Your task to perform on an android device: open a new tab in the chrome app Image 0: 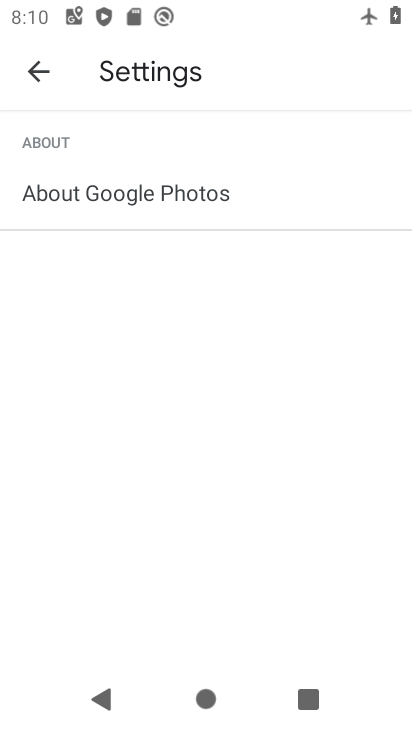
Step 0: press home button
Your task to perform on an android device: open a new tab in the chrome app Image 1: 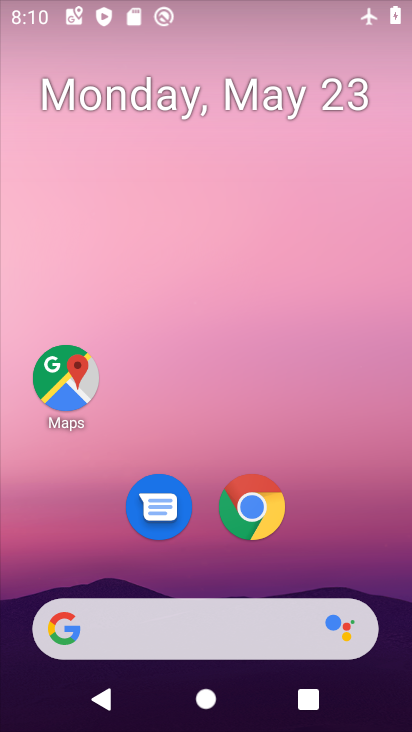
Step 1: drag from (358, 534) to (296, 194)
Your task to perform on an android device: open a new tab in the chrome app Image 2: 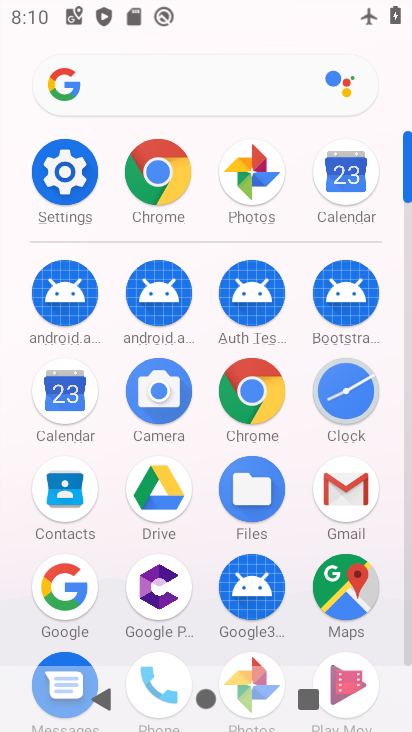
Step 2: click (263, 406)
Your task to perform on an android device: open a new tab in the chrome app Image 3: 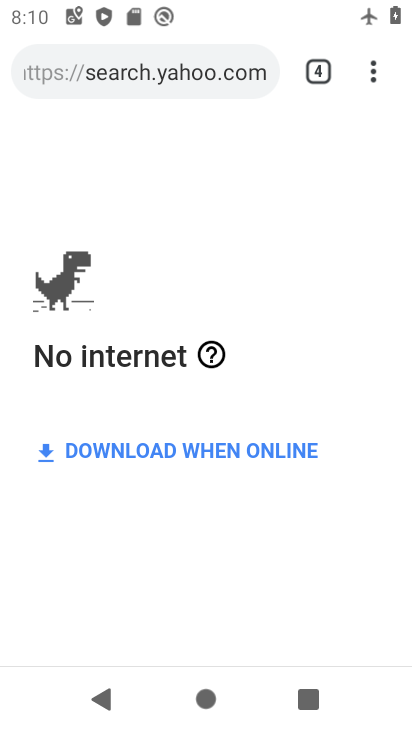
Step 3: click (311, 62)
Your task to perform on an android device: open a new tab in the chrome app Image 4: 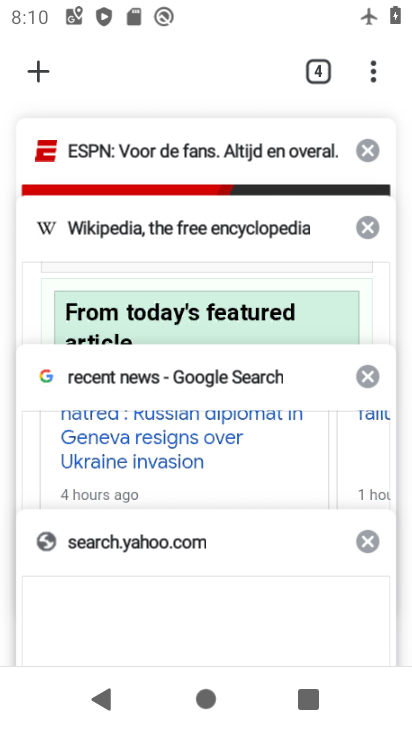
Step 4: click (44, 70)
Your task to perform on an android device: open a new tab in the chrome app Image 5: 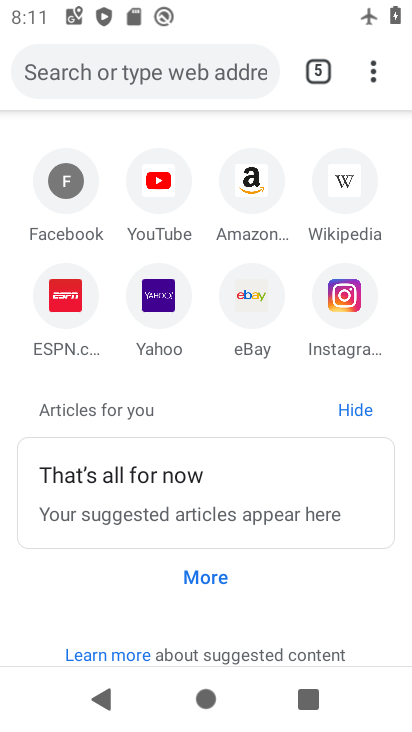
Step 5: task complete